Your task to perform on an android device: Go to internet settings Image 0: 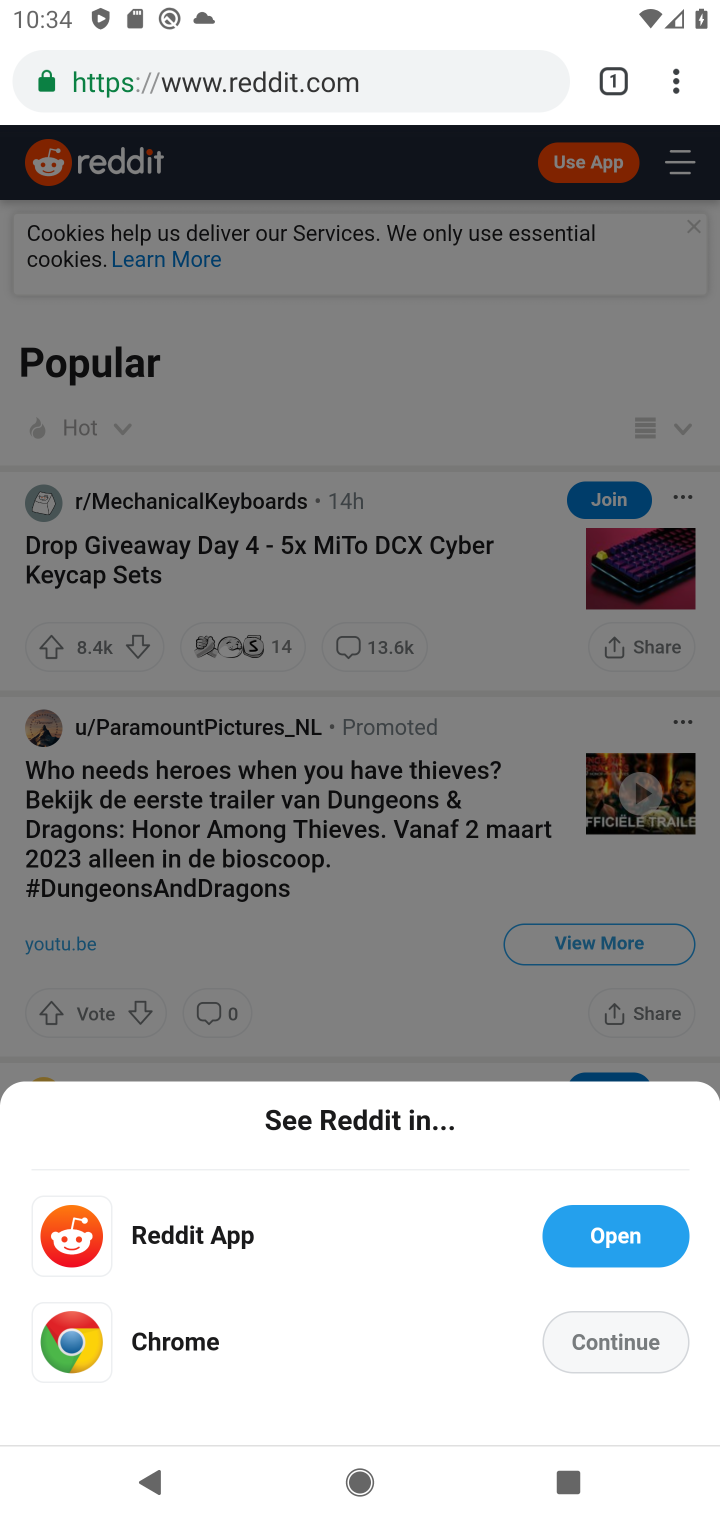
Step 0: press back button
Your task to perform on an android device: Go to internet settings Image 1: 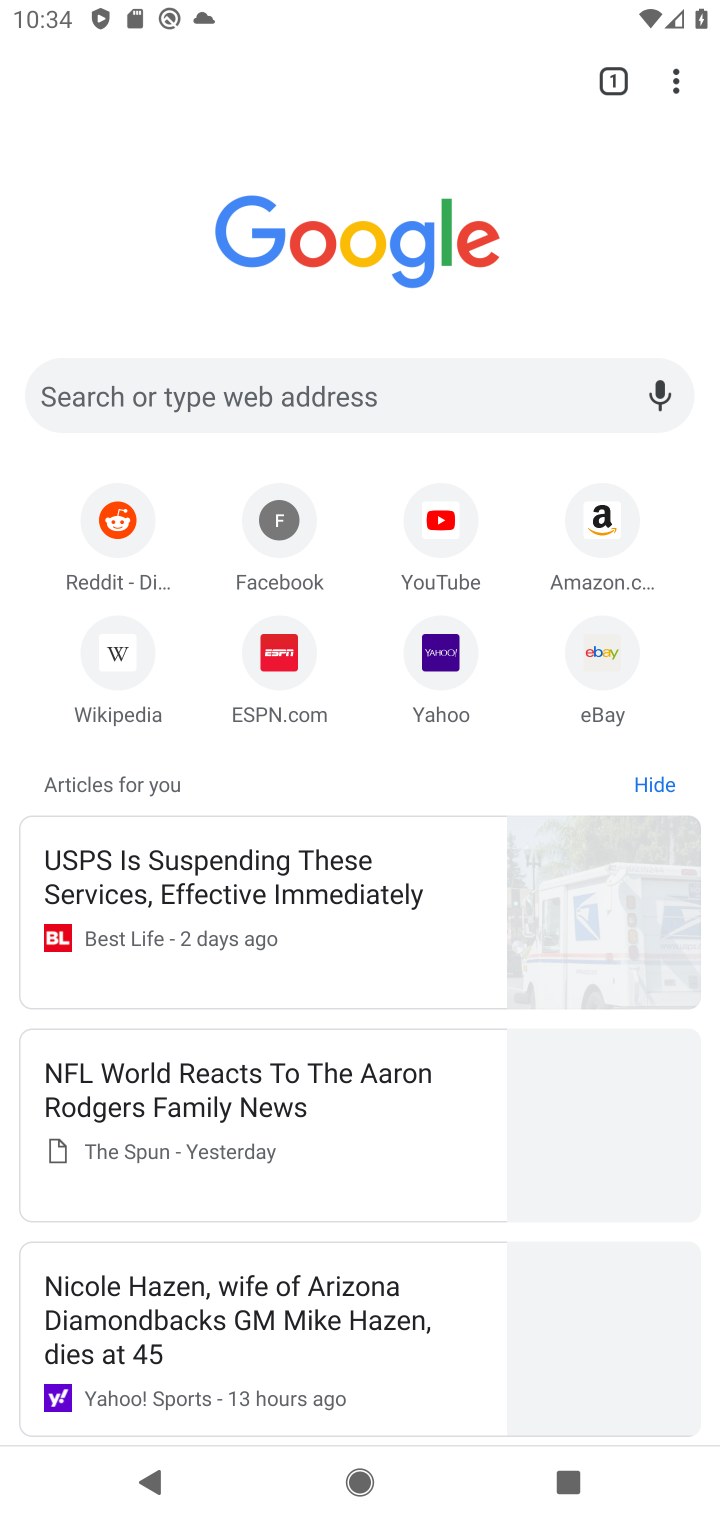
Step 1: press back button
Your task to perform on an android device: Go to internet settings Image 2: 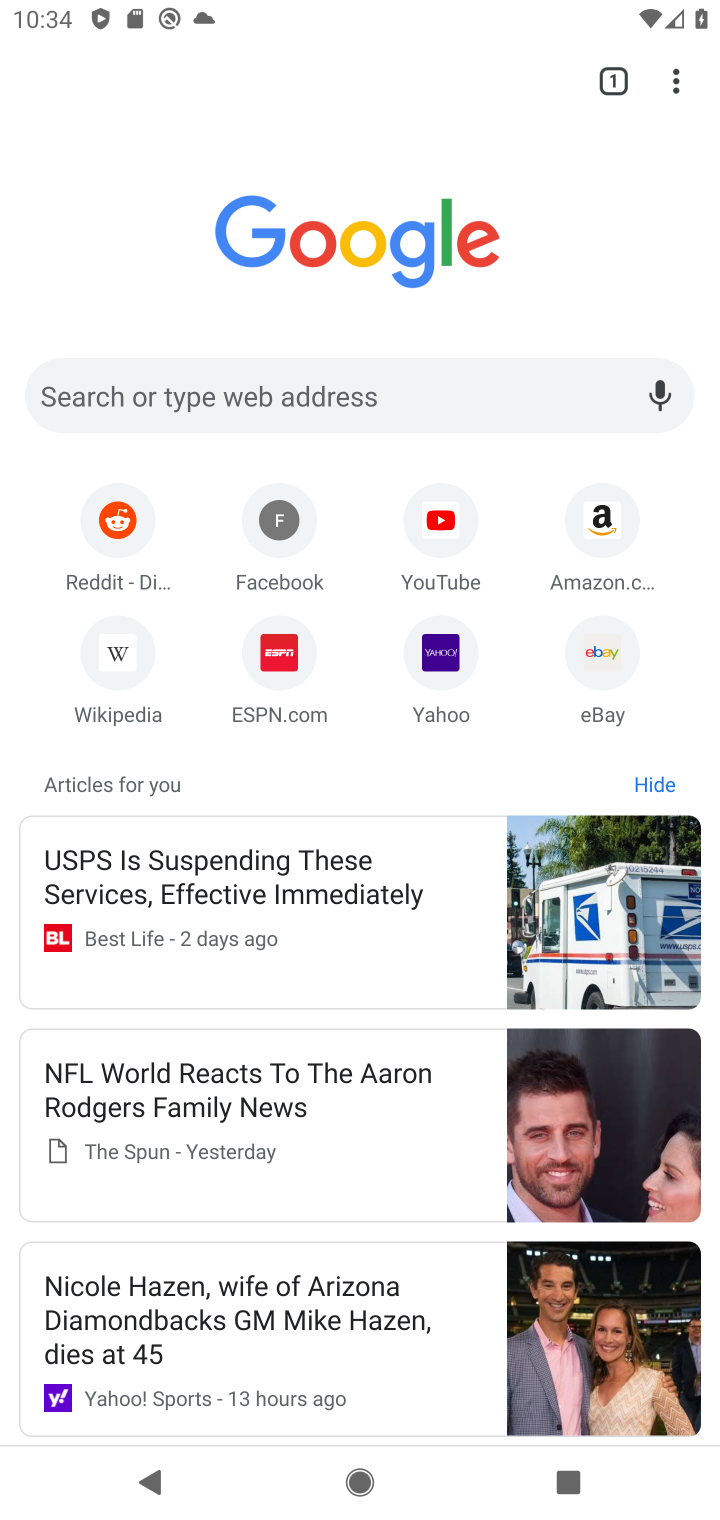
Step 2: press back button
Your task to perform on an android device: Go to internet settings Image 3: 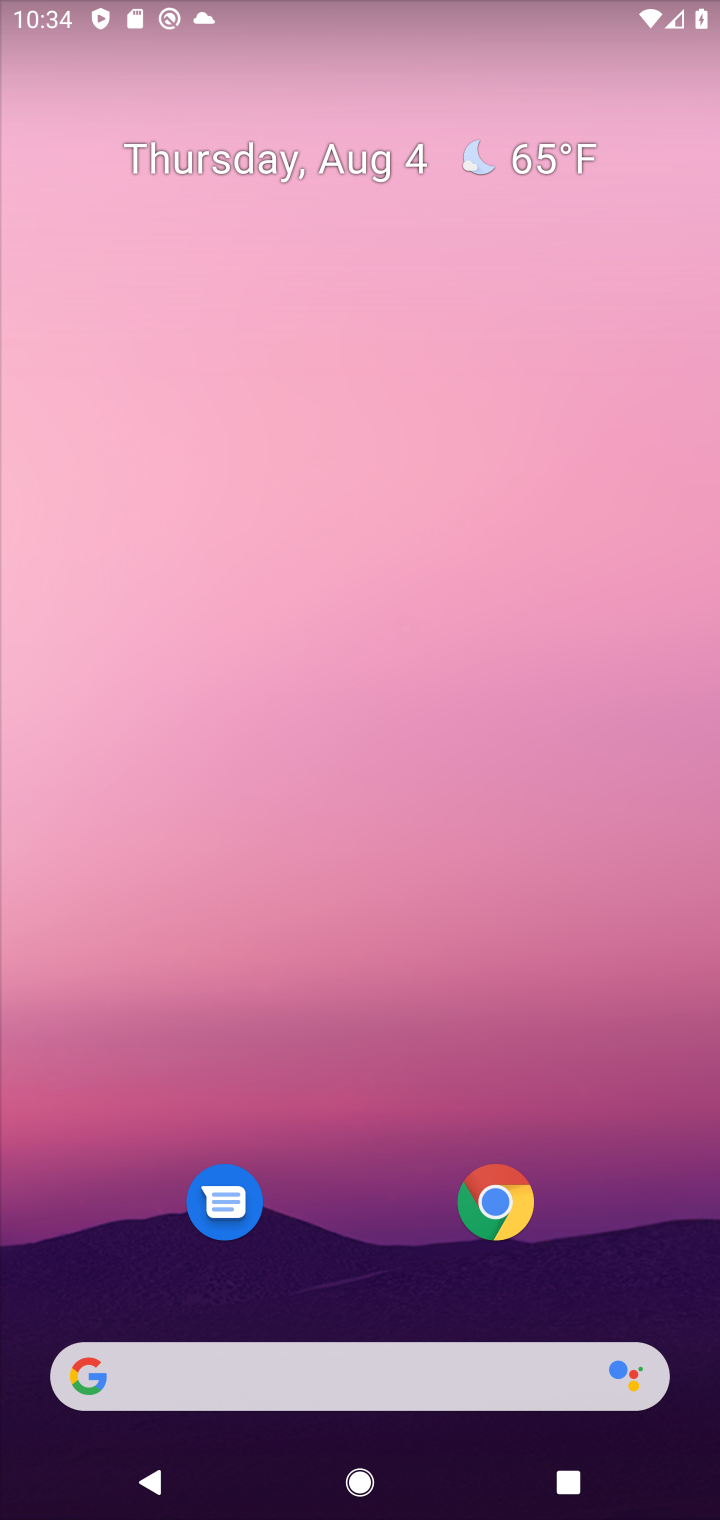
Step 3: drag from (327, 1277) to (329, 4)
Your task to perform on an android device: Go to internet settings Image 4: 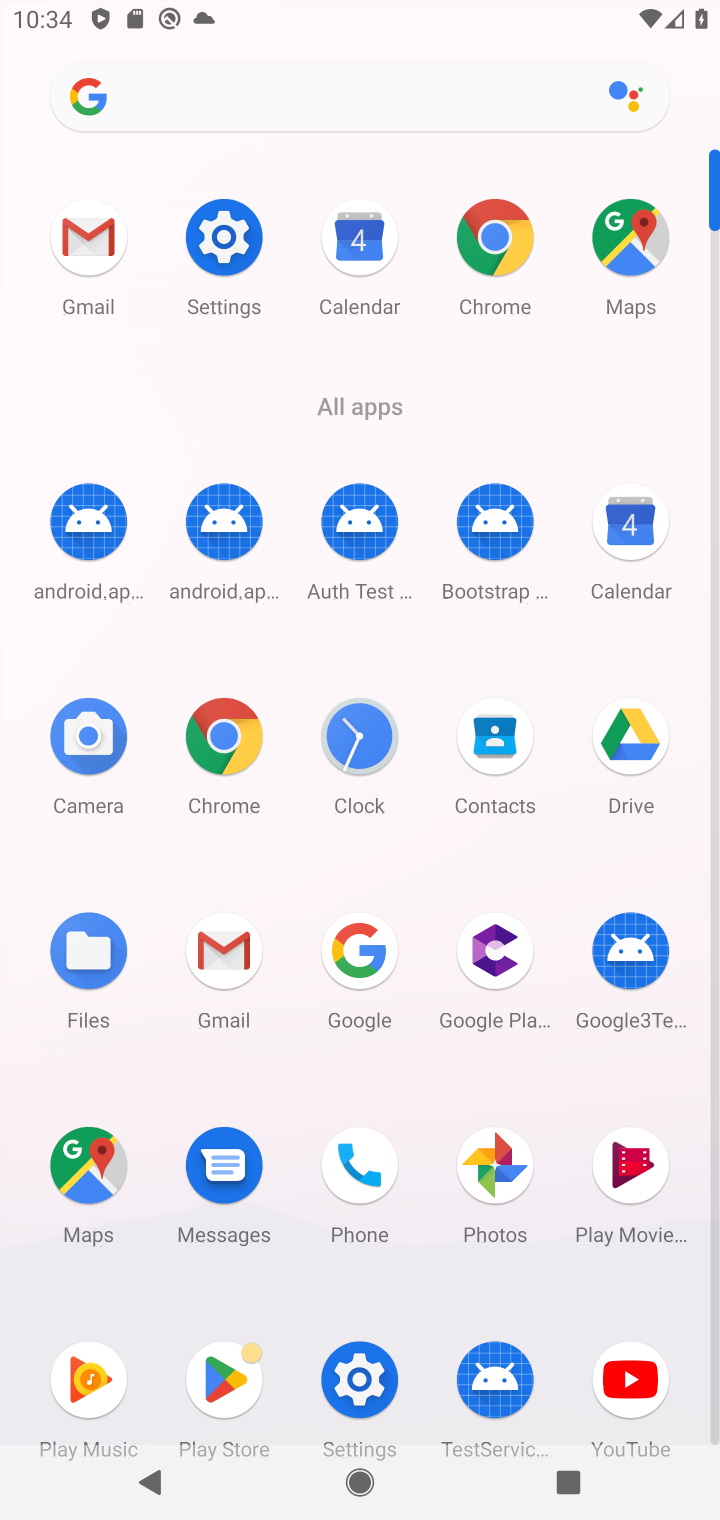
Step 4: click (219, 257)
Your task to perform on an android device: Go to internet settings Image 5: 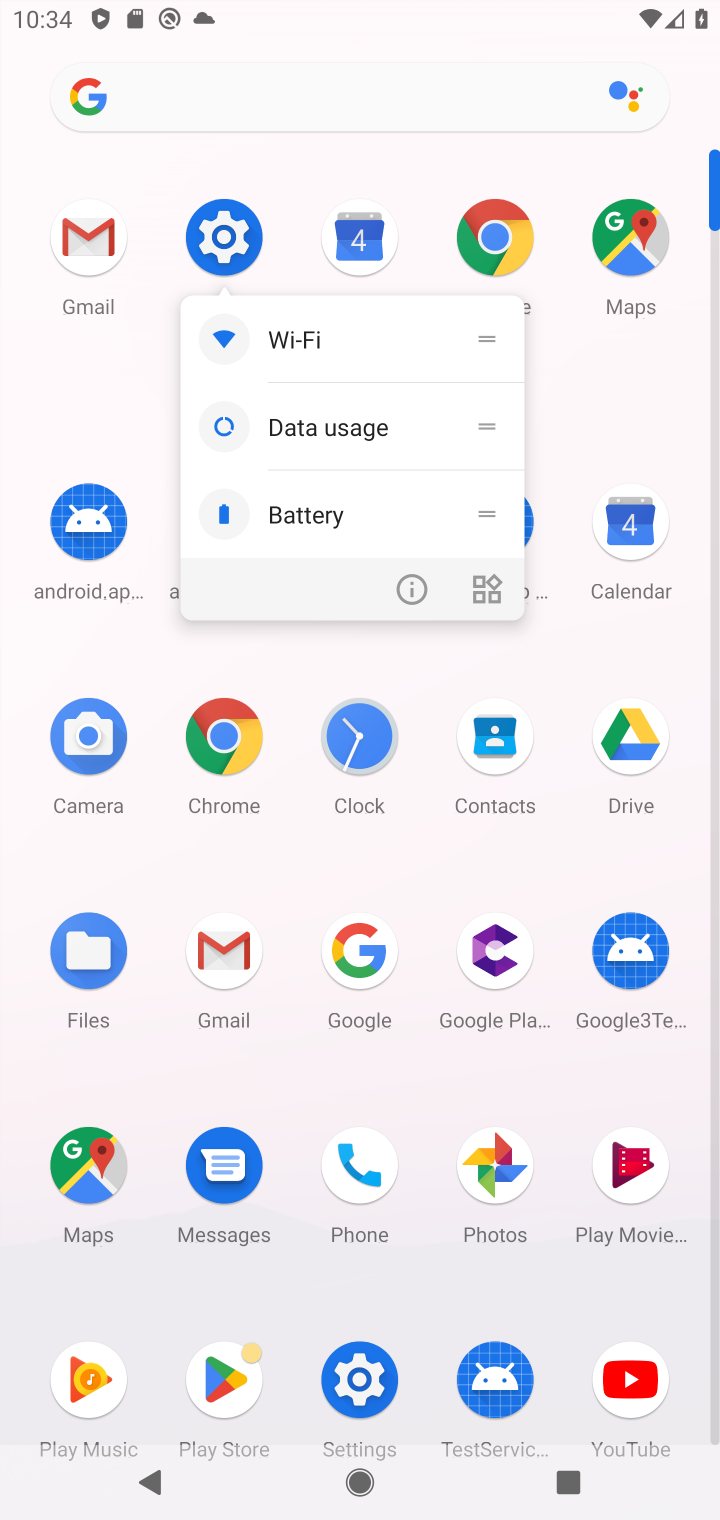
Step 5: click (219, 244)
Your task to perform on an android device: Go to internet settings Image 6: 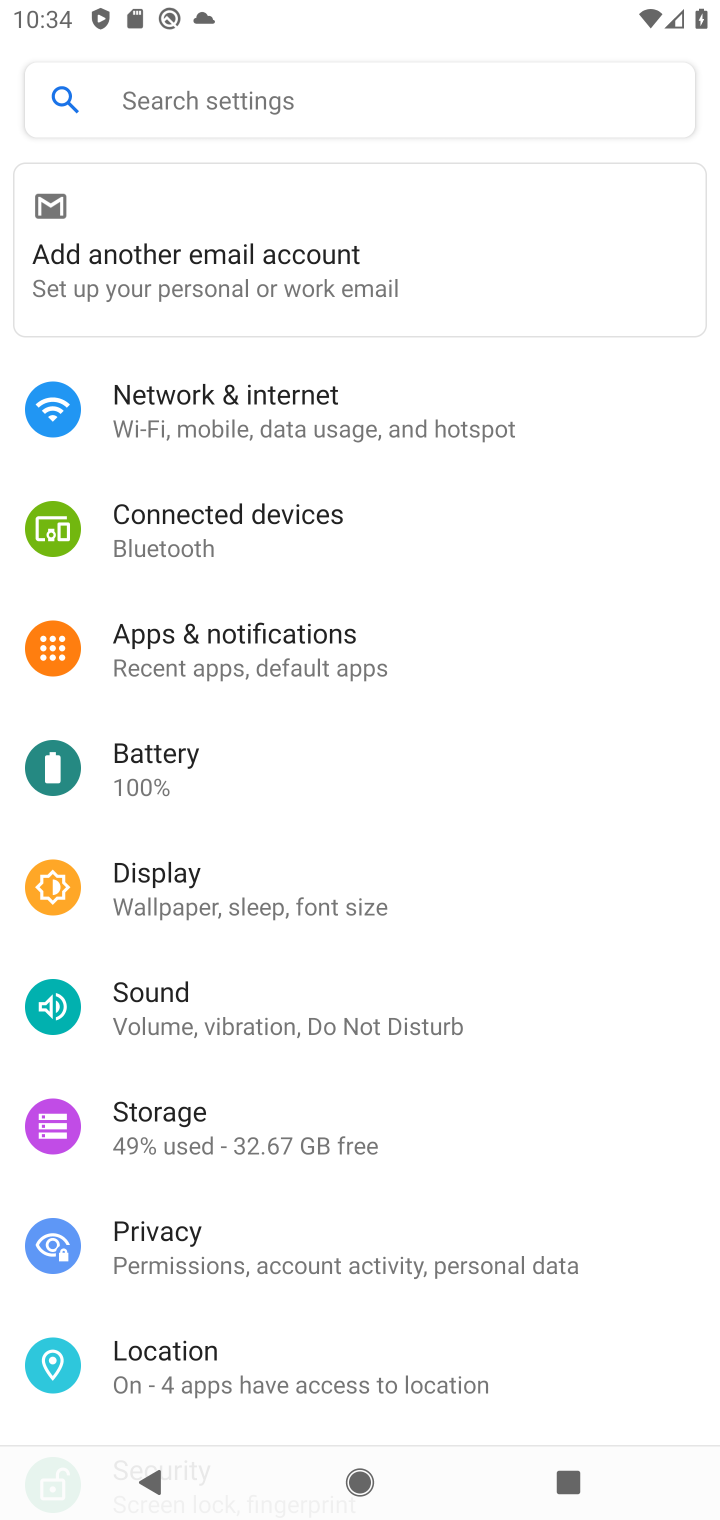
Step 6: click (219, 421)
Your task to perform on an android device: Go to internet settings Image 7: 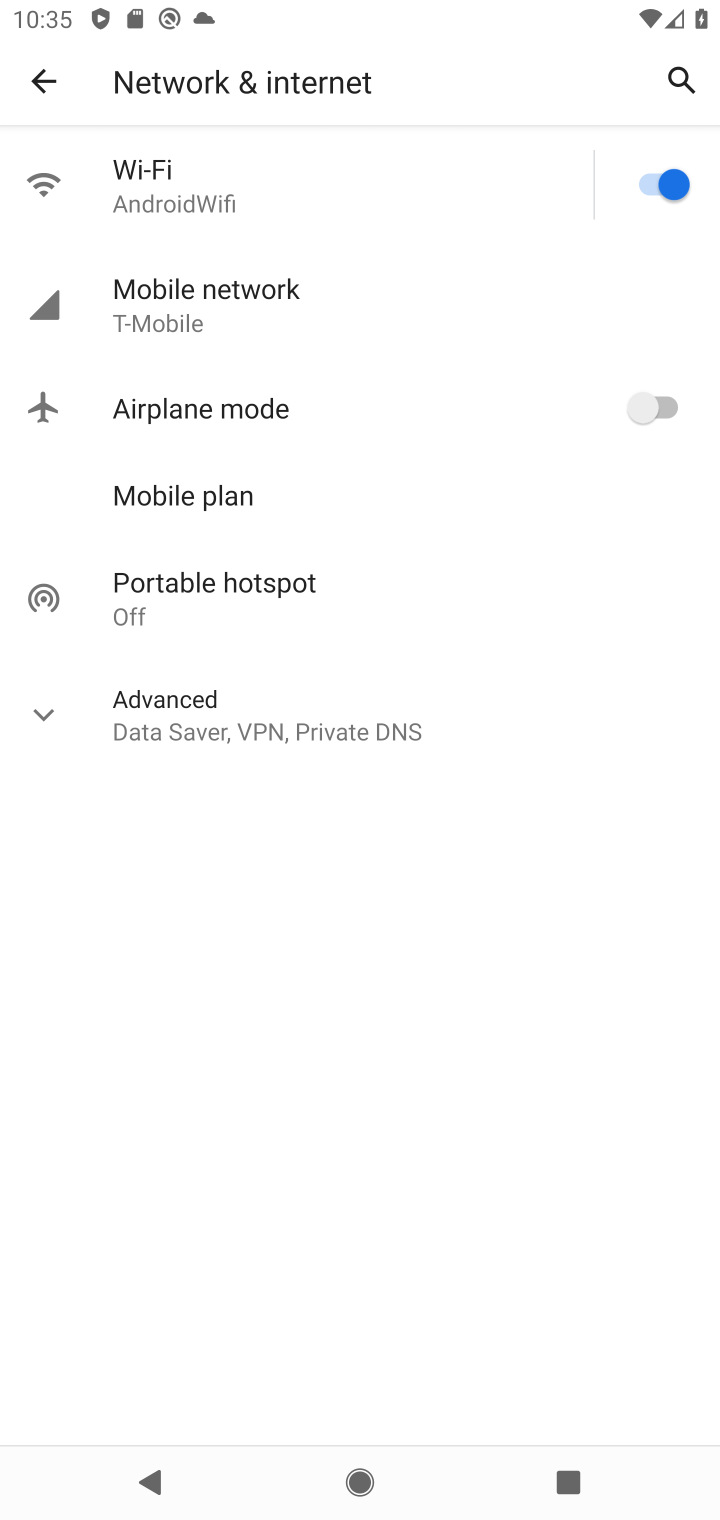
Step 7: task complete